Your task to perform on an android device: uninstall "VLC for Android" Image 0: 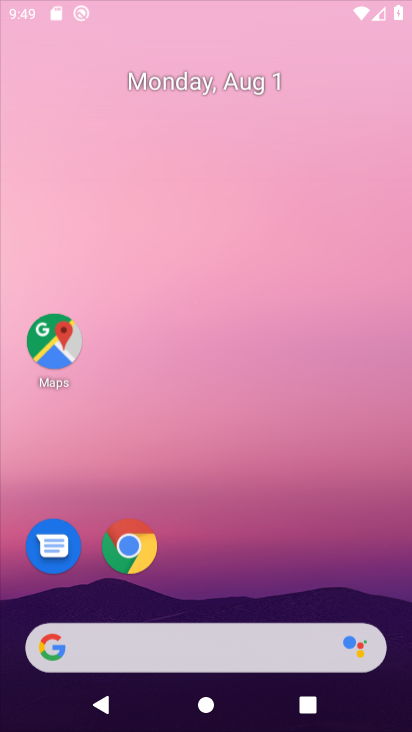
Step 0: press home button
Your task to perform on an android device: uninstall "VLC for Android" Image 1: 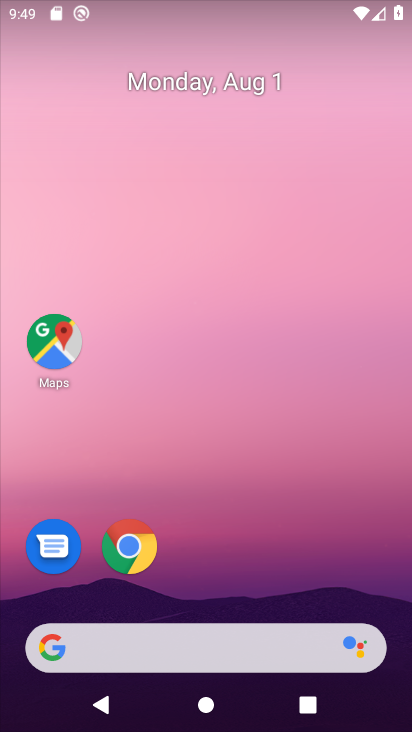
Step 1: drag from (224, 598) to (229, 27)
Your task to perform on an android device: uninstall "VLC for Android" Image 2: 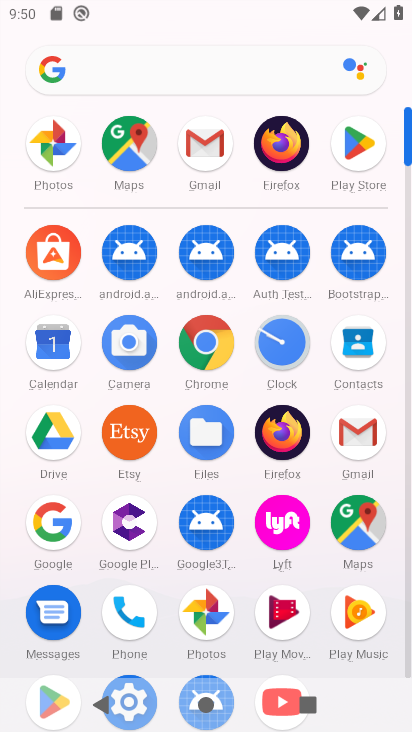
Step 2: click (352, 145)
Your task to perform on an android device: uninstall "VLC for Android" Image 3: 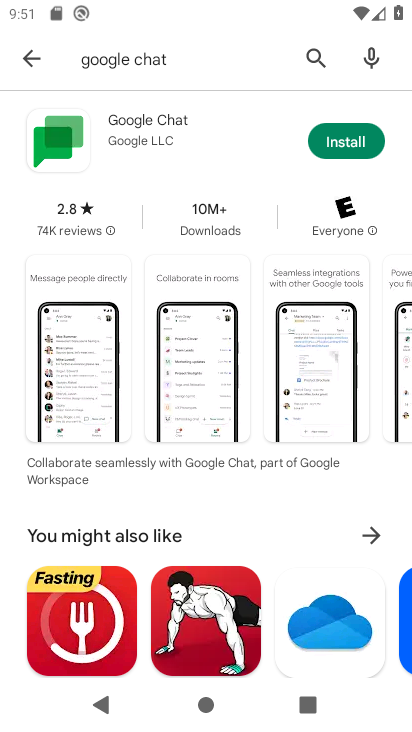
Step 3: click (300, 48)
Your task to perform on an android device: uninstall "VLC for Android" Image 4: 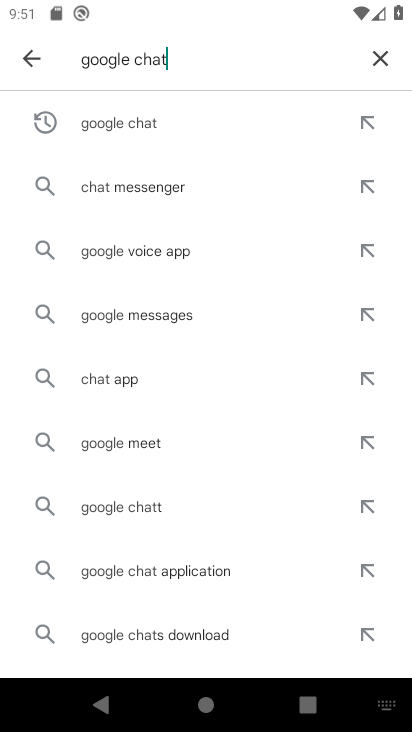
Step 4: click (375, 54)
Your task to perform on an android device: uninstall "VLC for Android" Image 5: 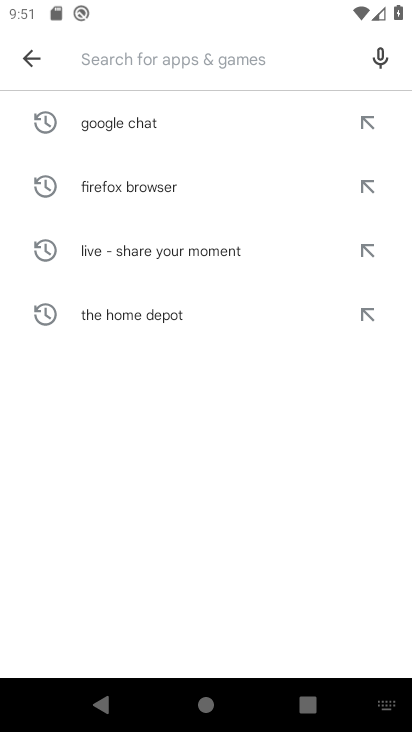
Step 5: type "VLC for Android"
Your task to perform on an android device: uninstall "VLC for Android" Image 6: 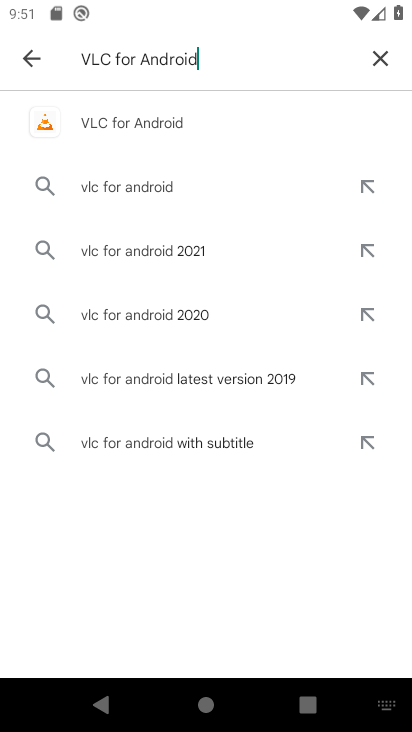
Step 6: click (204, 120)
Your task to perform on an android device: uninstall "VLC for Android" Image 7: 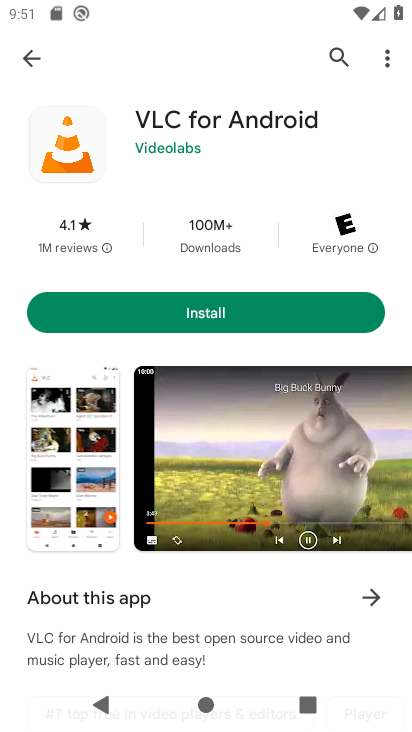
Step 7: task complete